Your task to perform on an android device: Go to eBay Image 0: 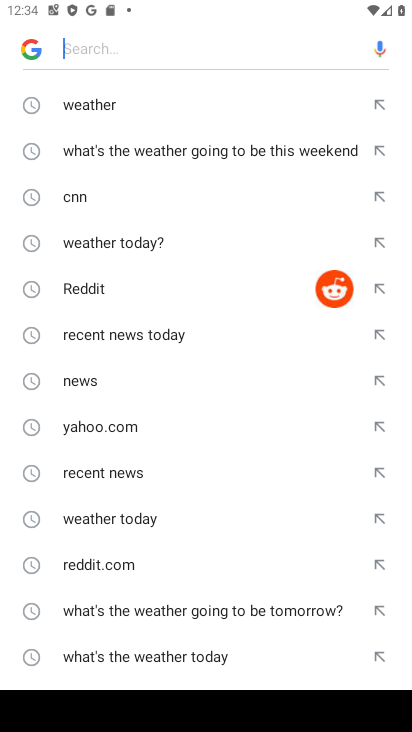
Step 0: press home button
Your task to perform on an android device: Go to eBay Image 1: 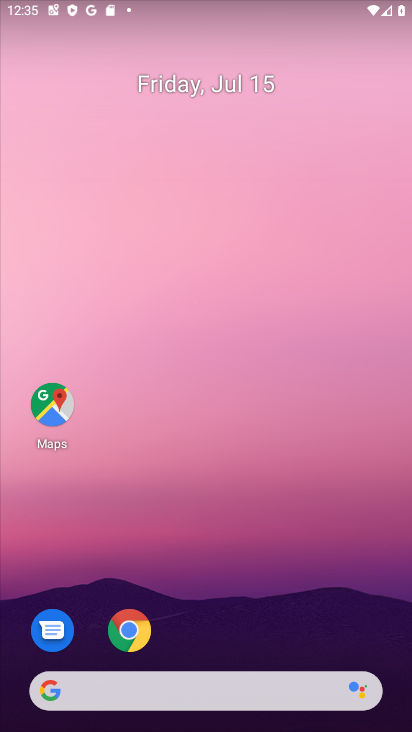
Step 1: click (127, 625)
Your task to perform on an android device: Go to eBay Image 2: 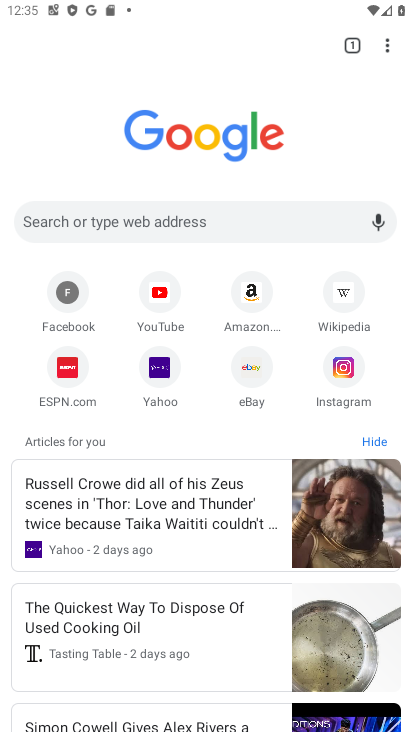
Step 2: click (237, 374)
Your task to perform on an android device: Go to eBay Image 3: 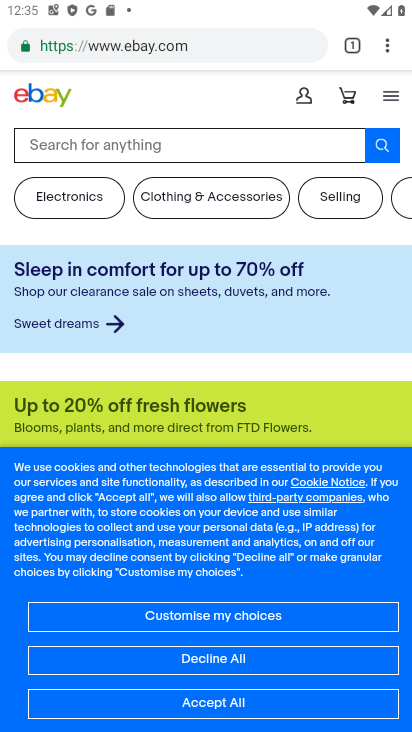
Step 3: task complete